Your task to perform on an android device: Go to settings Image 0: 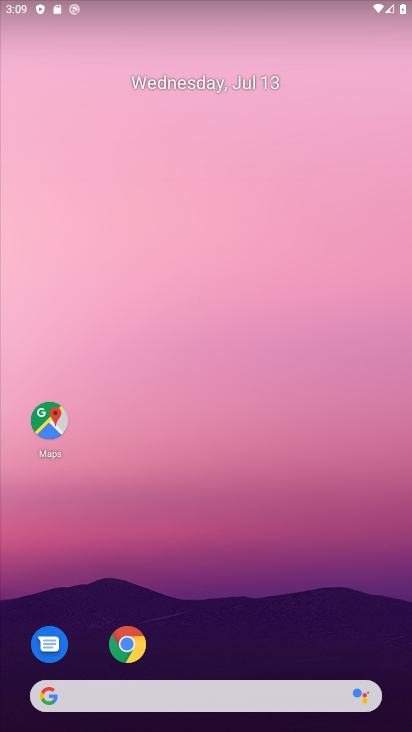
Step 0: drag from (217, 691) to (257, 236)
Your task to perform on an android device: Go to settings Image 1: 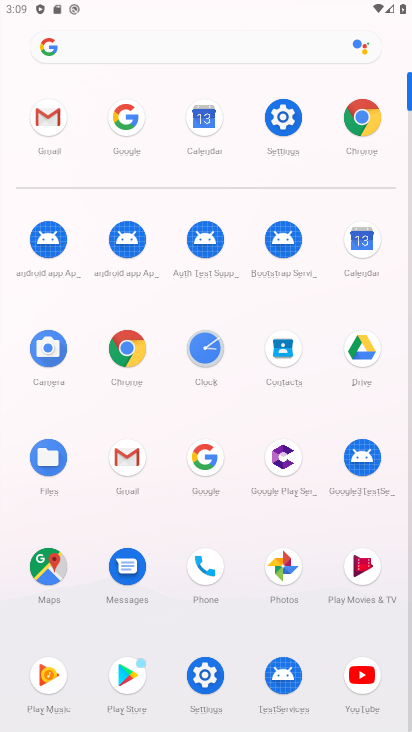
Step 1: click (285, 123)
Your task to perform on an android device: Go to settings Image 2: 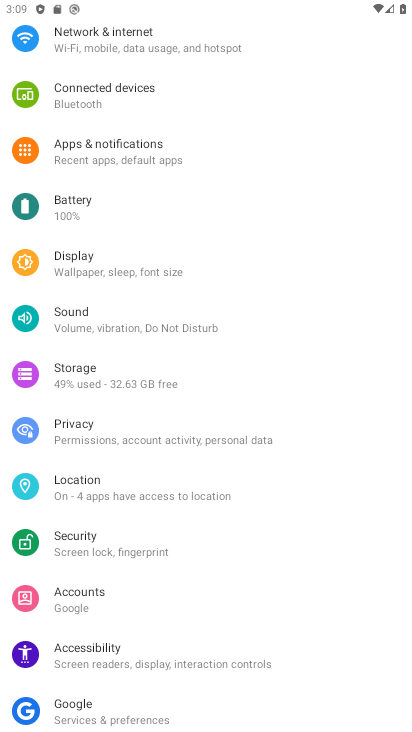
Step 2: task complete